Your task to perform on an android device: Open the web browser Image 0: 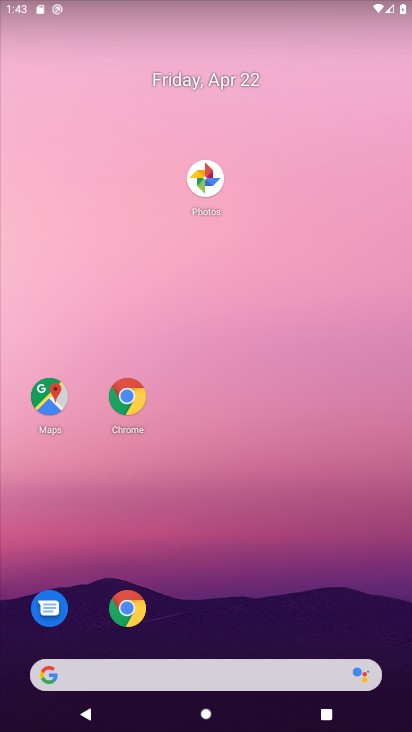
Step 0: drag from (231, 712) to (184, 217)
Your task to perform on an android device: Open the web browser Image 1: 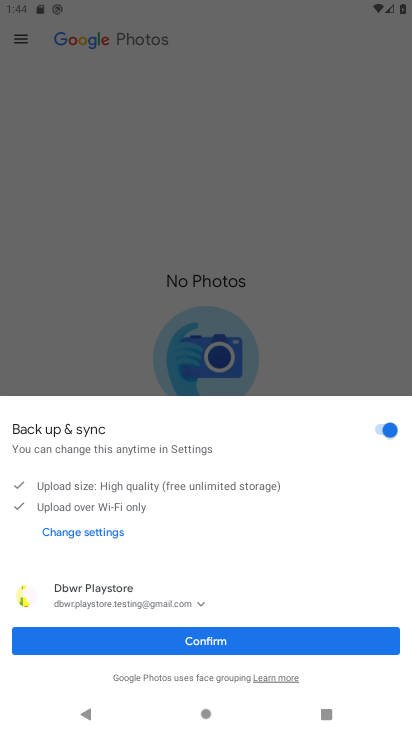
Step 1: click (205, 636)
Your task to perform on an android device: Open the web browser Image 2: 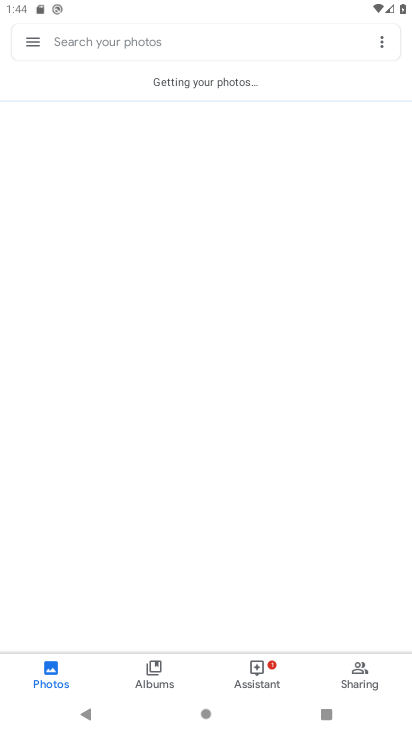
Step 2: drag from (184, 460) to (110, 288)
Your task to perform on an android device: Open the web browser Image 3: 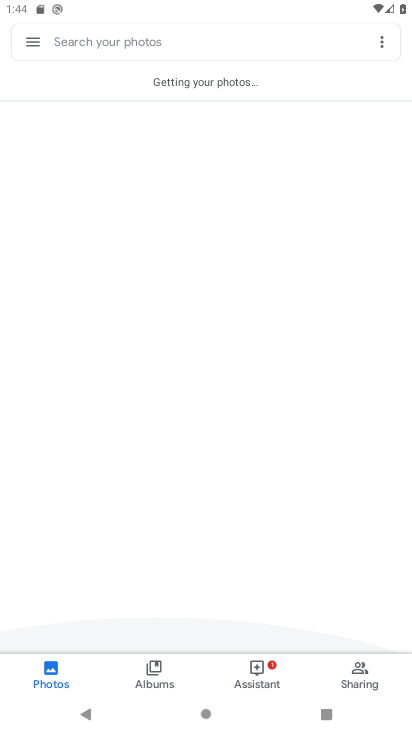
Step 3: drag from (262, 582) to (246, 186)
Your task to perform on an android device: Open the web browser Image 4: 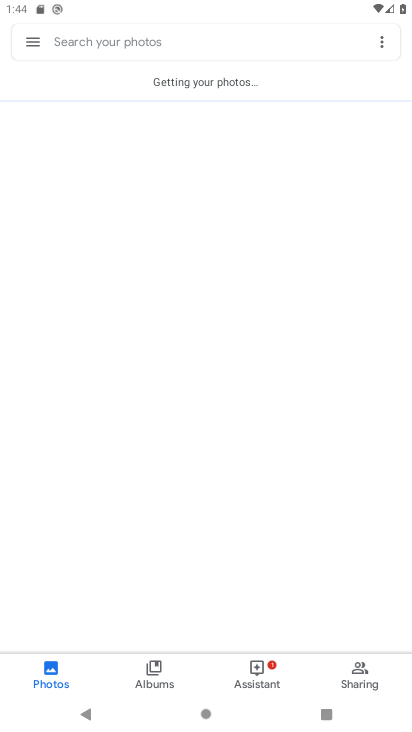
Step 4: press home button
Your task to perform on an android device: Open the web browser Image 5: 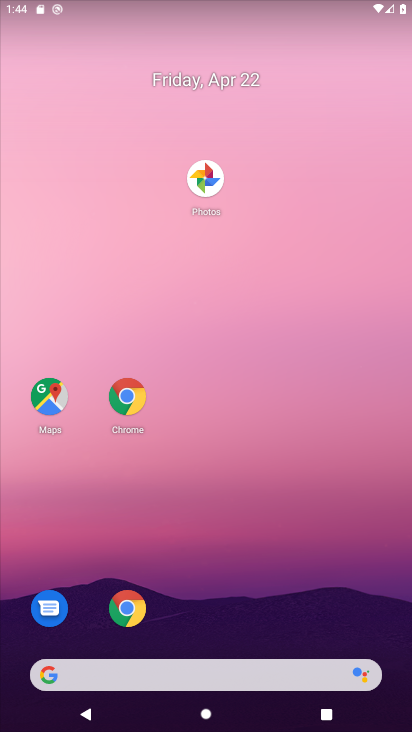
Step 5: drag from (217, 632) to (102, 78)
Your task to perform on an android device: Open the web browser Image 6: 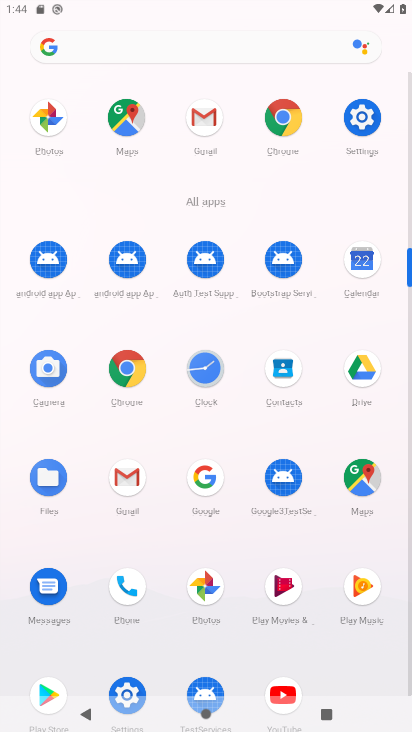
Step 6: drag from (203, 587) to (98, 196)
Your task to perform on an android device: Open the web browser Image 7: 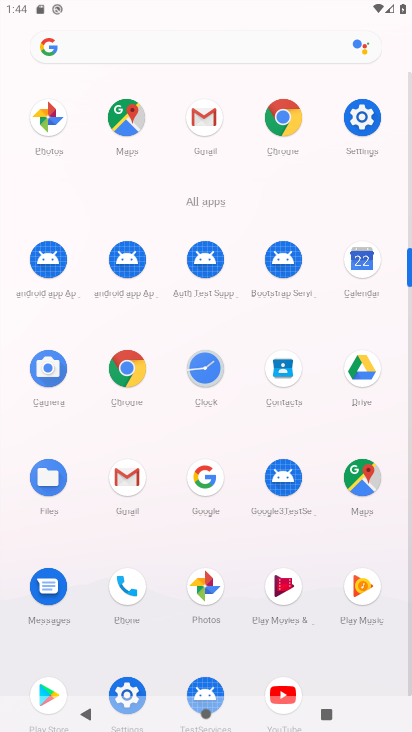
Step 7: click (269, 115)
Your task to perform on an android device: Open the web browser Image 8: 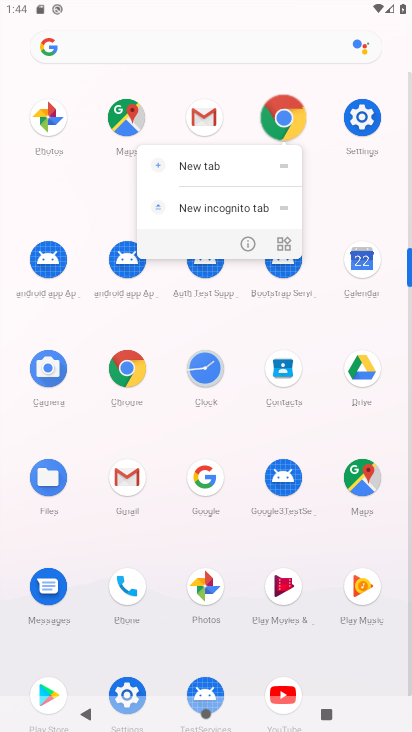
Step 8: click (278, 118)
Your task to perform on an android device: Open the web browser Image 9: 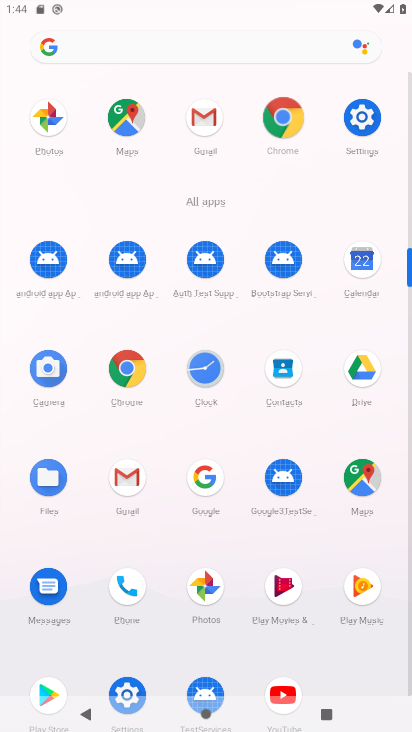
Step 9: click (278, 118)
Your task to perform on an android device: Open the web browser Image 10: 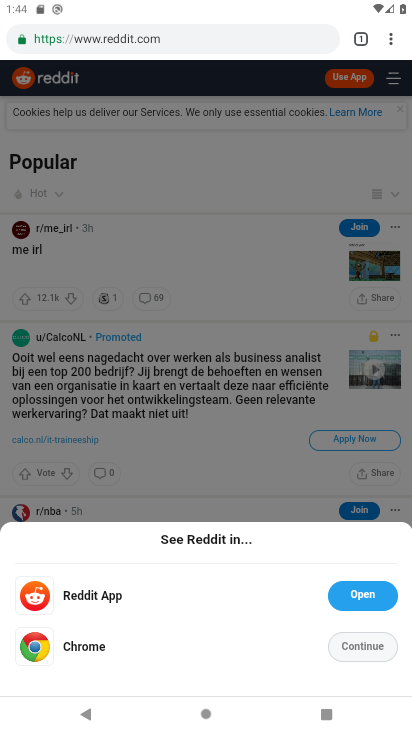
Step 10: drag from (393, 35) to (251, 88)
Your task to perform on an android device: Open the web browser Image 11: 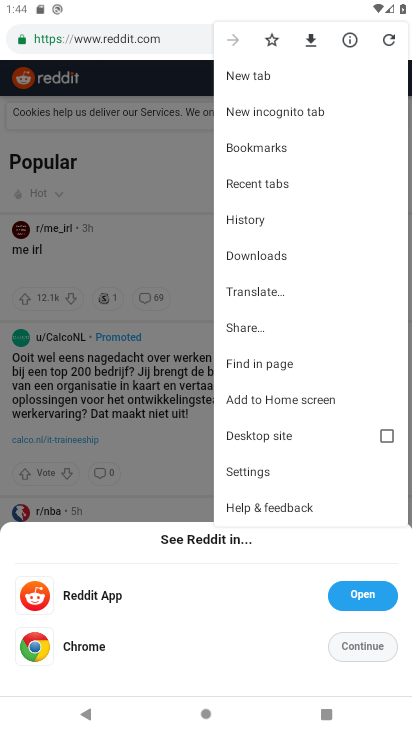
Step 11: click (251, 88)
Your task to perform on an android device: Open the web browser Image 12: 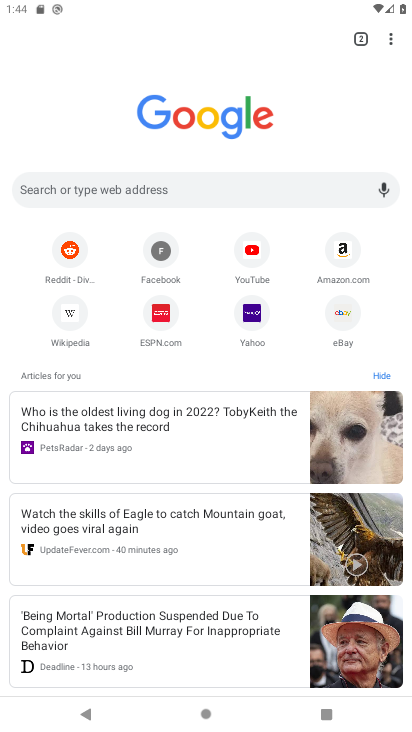
Step 12: task complete